Your task to perform on an android device: clear all cookies in the chrome app Image 0: 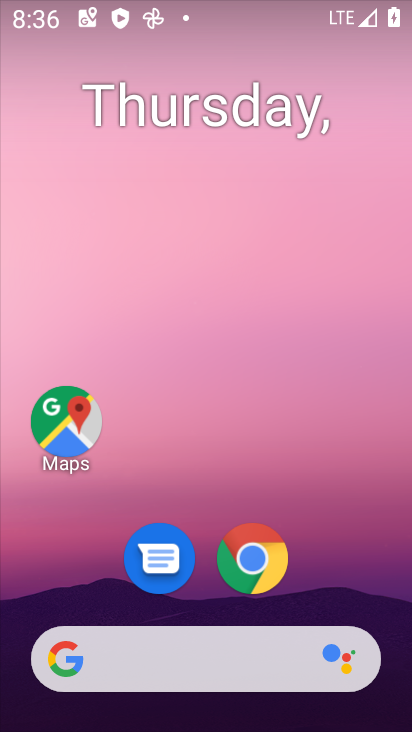
Step 0: click (253, 557)
Your task to perform on an android device: clear all cookies in the chrome app Image 1: 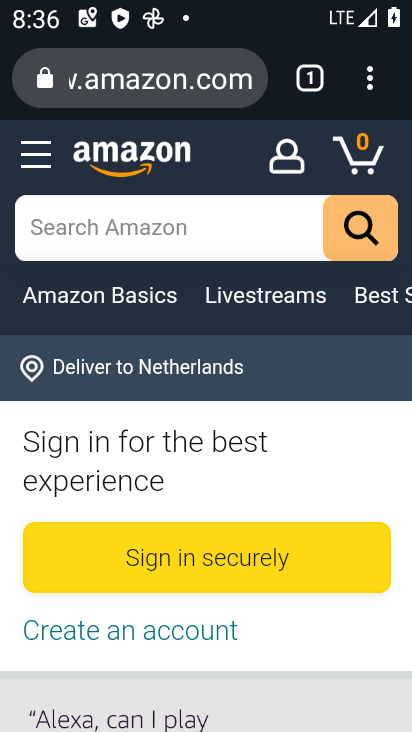
Step 1: click (370, 87)
Your task to perform on an android device: clear all cookies in the chrome app Image 2: 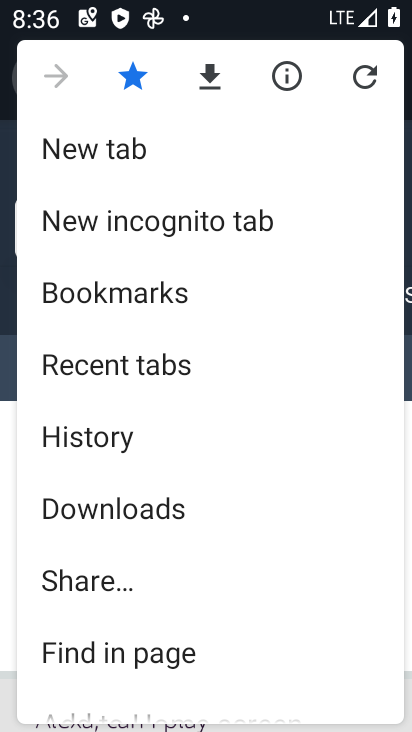
Step 2: click (108, 430)
Your task to perform on an android device: clear all cookies in the chrome app Image 3: 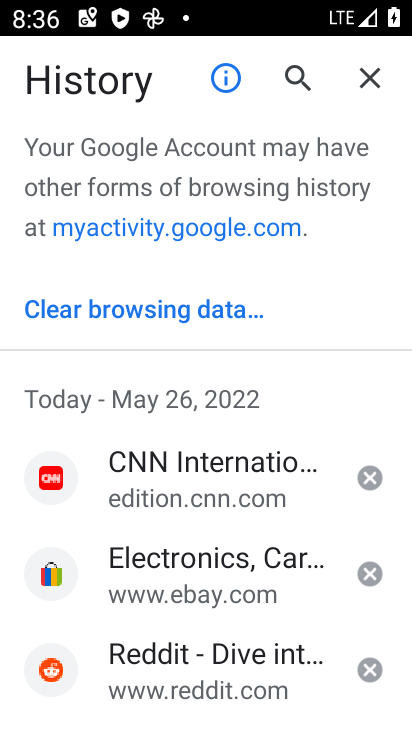
Step 3: click (158, 313)
Your task to perform on an android device: clear all cookies in the chrome app Image 4: 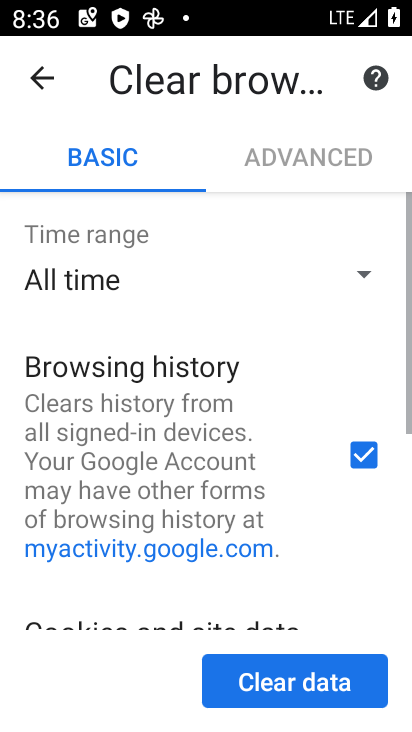
Step 4: click (312, 685)
Your task to perform on an android device: clear all cookies in the chrome app Image 5: 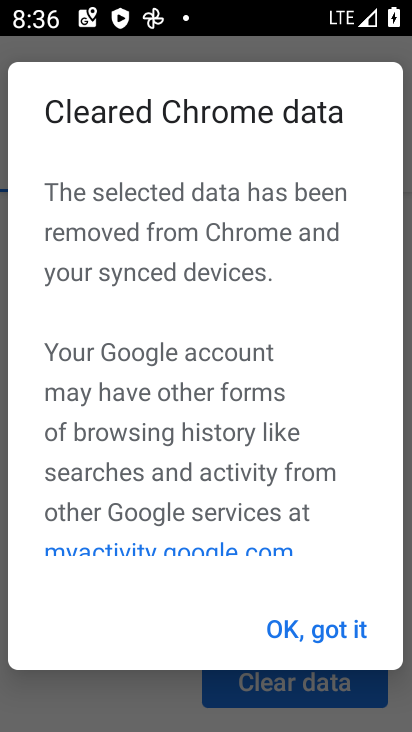
Step 5: click (324, 619)
Your task to perform on an android device: clear all cookies in the chrome app Image 6: 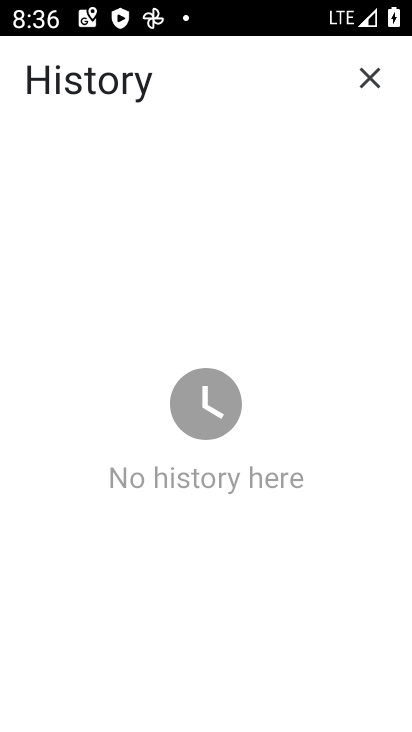
Step 6: task complete